Your task to perform on an android device: open app "Nova Launcher" (install if not already installed) Image 0: 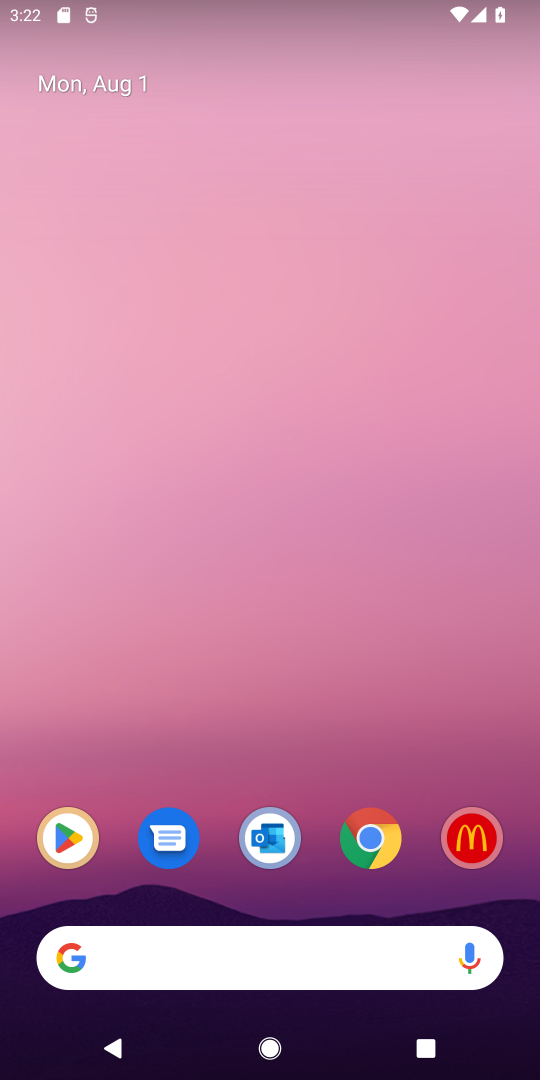
Step 0: click (64, 820)
Your task to perform on an android device: open app "Nova Launcher" (install if not already installed) Image 1: 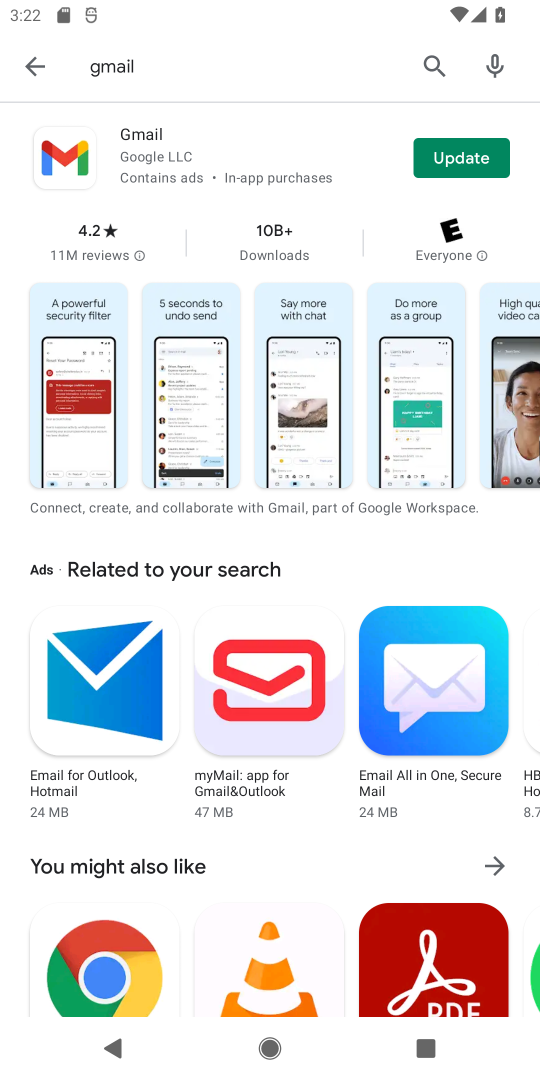
Step 1: click (449, 64)
Your task to perform on an android device: open app "Nova Launcher" (install if not already installed) Image 2: 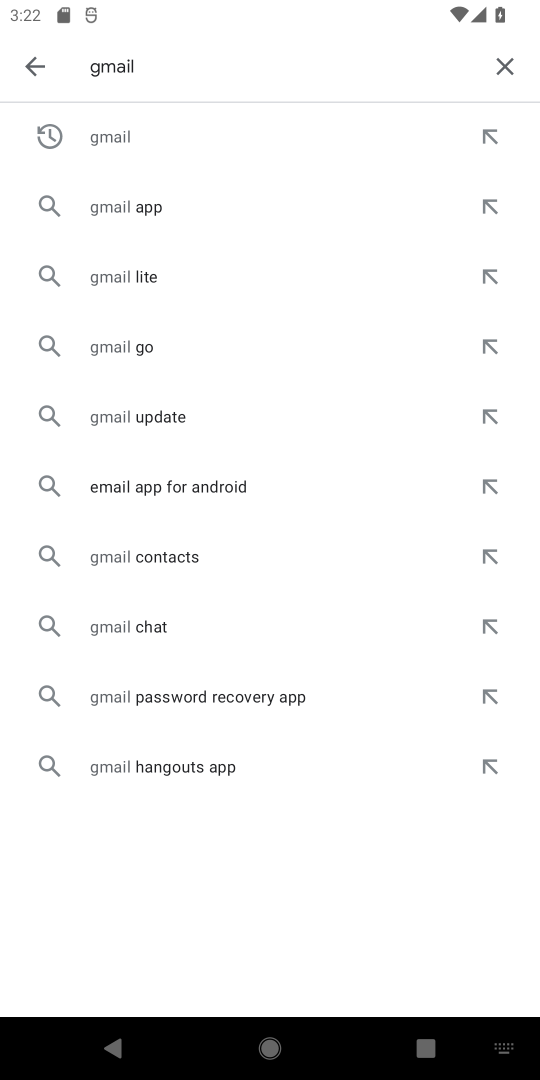
Step 2: click (501, 74)
Your task to perform on an android device: open app "Nova Launcher" (install if not already installed) Image 3: 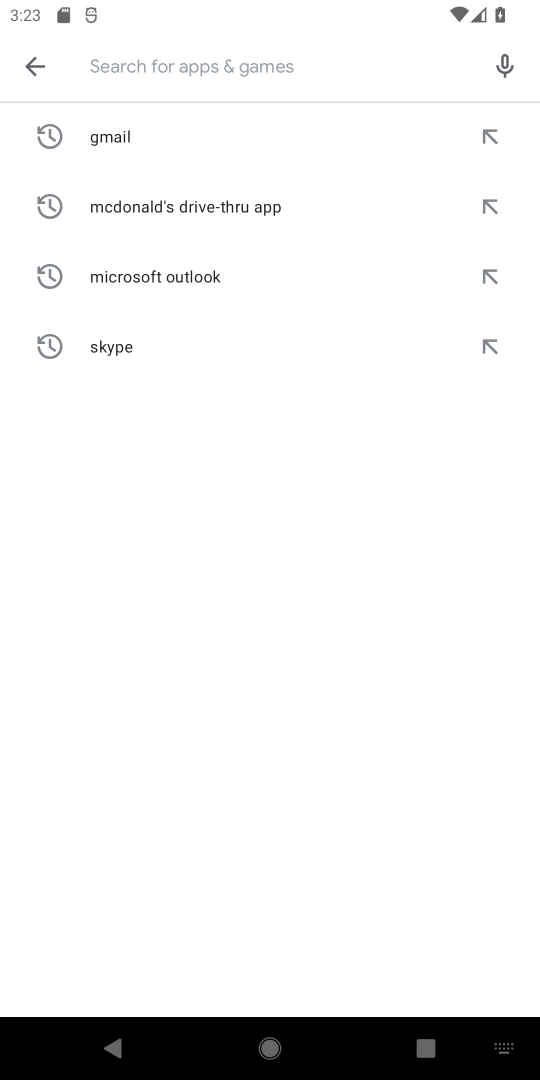
Step 3: type "Nova Launcher"
Your task to perform on an android device: open app "Nova Launcher" (install if not already installed) Image 4: 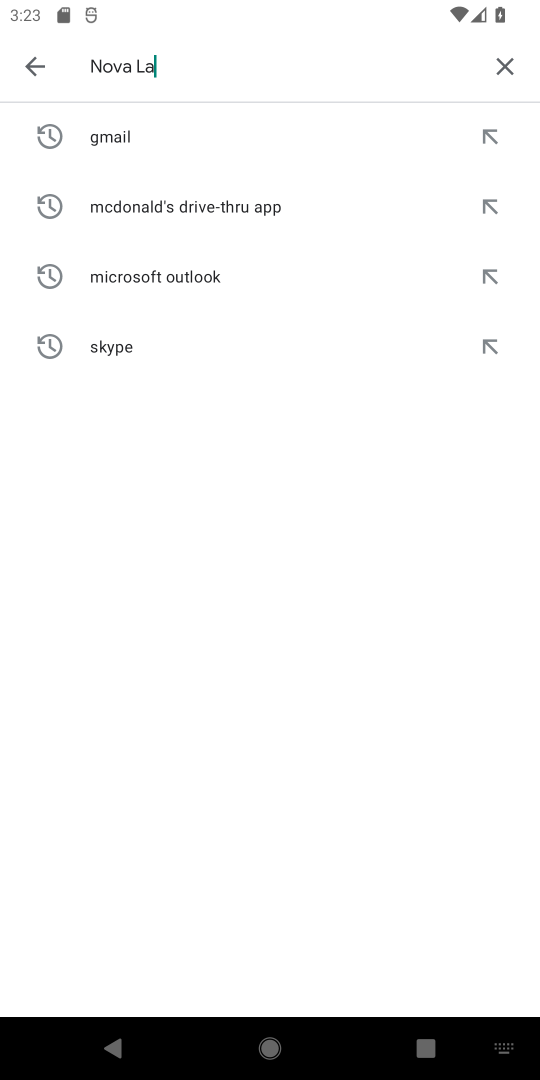
Step 4: type ""
Your task to perform on an android device: open app "Nova Launcher" (install if not already installed) Image 5: 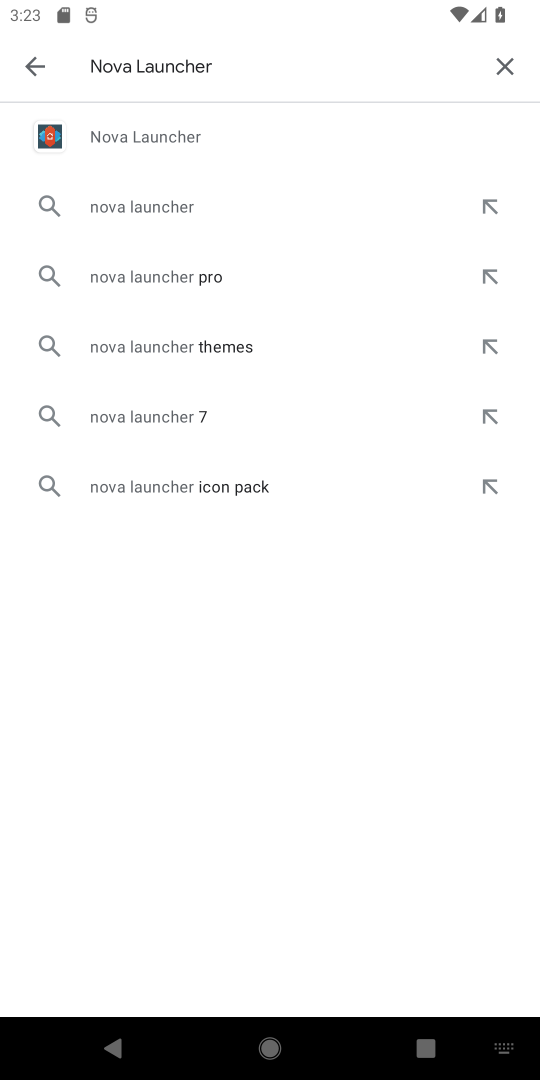
Step 5: click (170, 149)
Your task to perform on an android device: open app "Nova Launcher" (install if not already installed) Image 6: 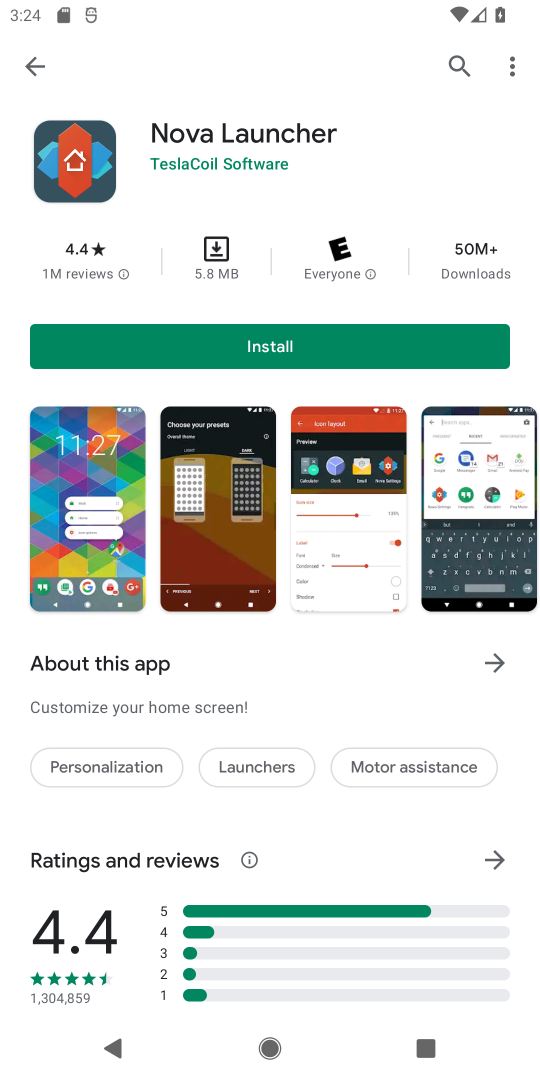
Step 6: click (324, 354)
Your task to perform on an android device: open app "Nova Launcher" (install if not already installed) Image 7: 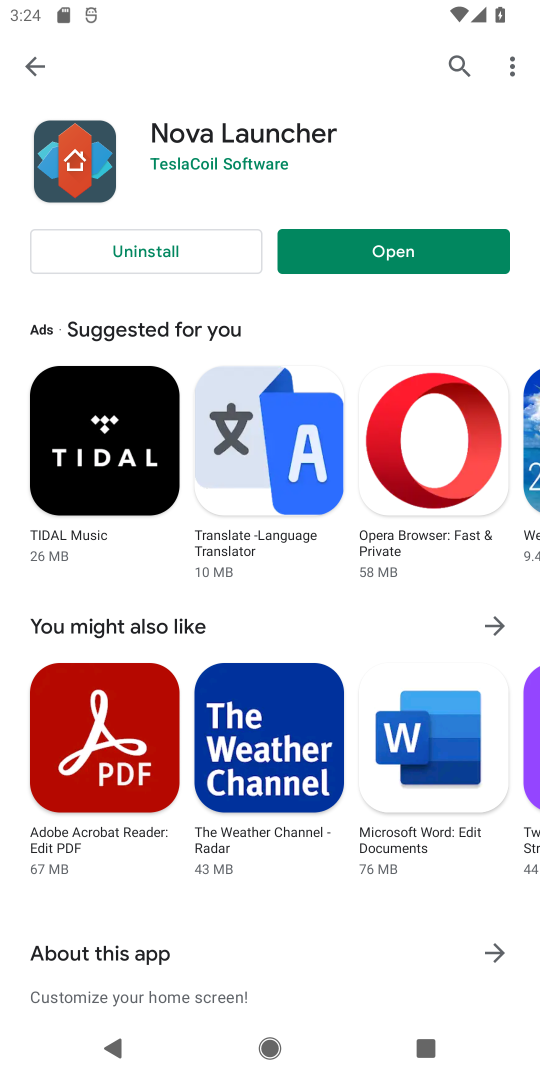
Step 7: click (412, 249)
Your task to perform on an android device: open app "Nova Launcher" (install if not already installed) Image 8: 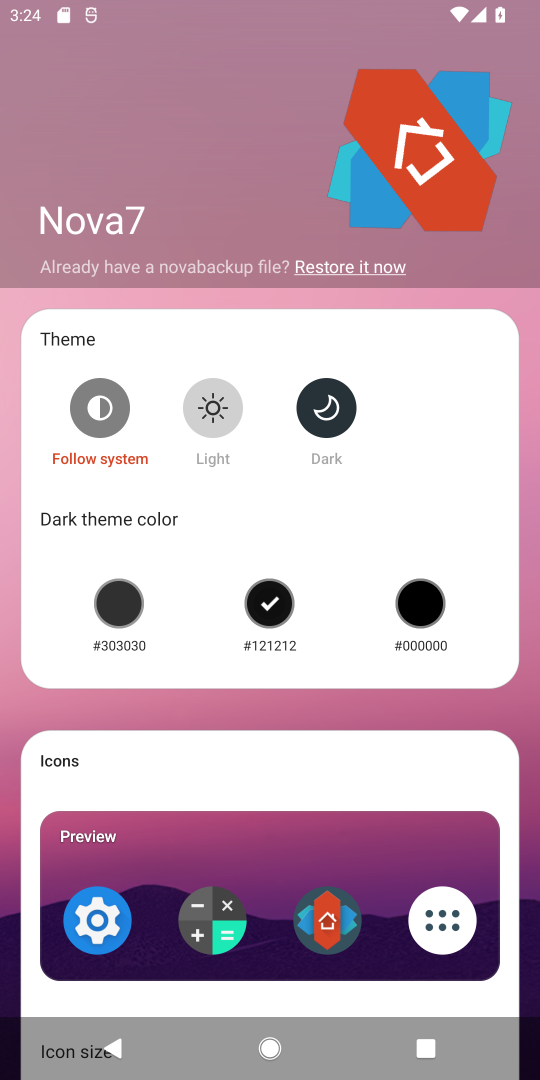
Step 8: task complete